Your task to perform on an android device: Show me productivity apps on the Play Store Image 0: 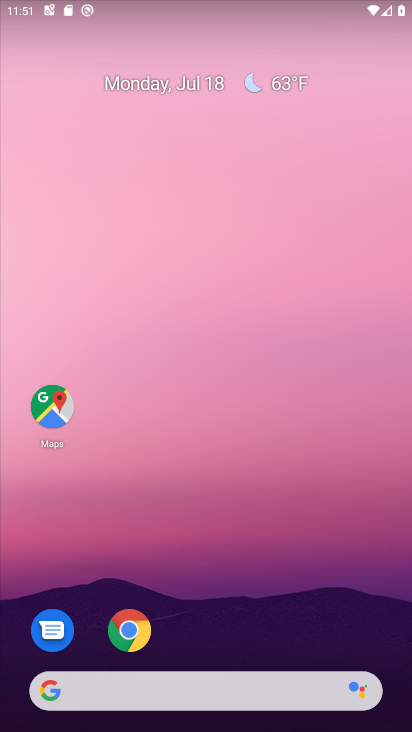
Step 0: drag from (216, 597) to (282, 115)
Your task to perform on an android device: Show me productivity apps on the Play Store Image 1: 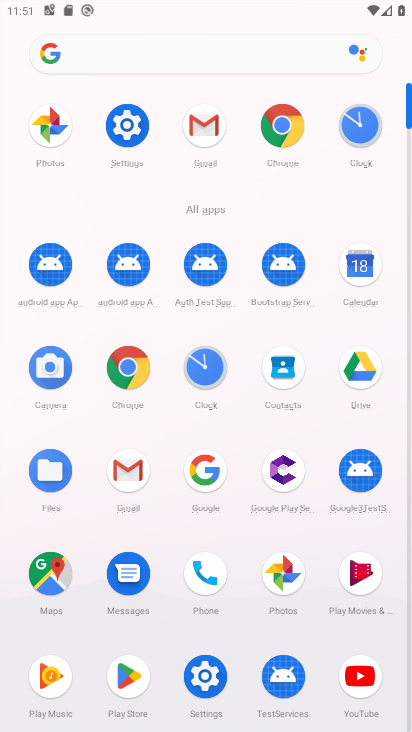
Step 1: click (124, 687)
Your task to perform on an android device: Show me productivity apps on the Play Store Image 2: 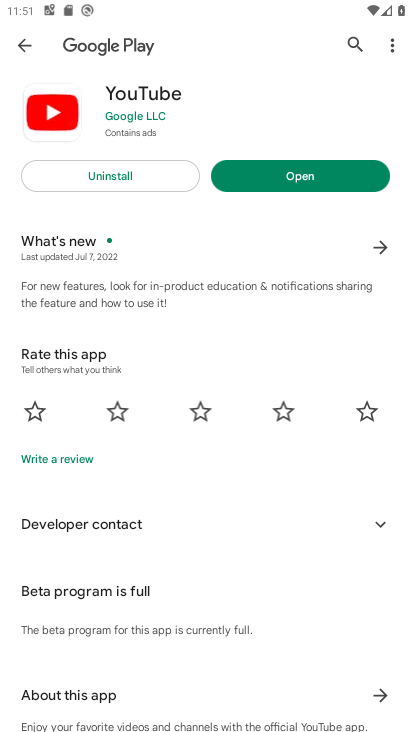
Step 2: drag from (355, 171) to (397, 0)
Your task to perform on an android device: Show me productivity apps on the Play Store Image 3: 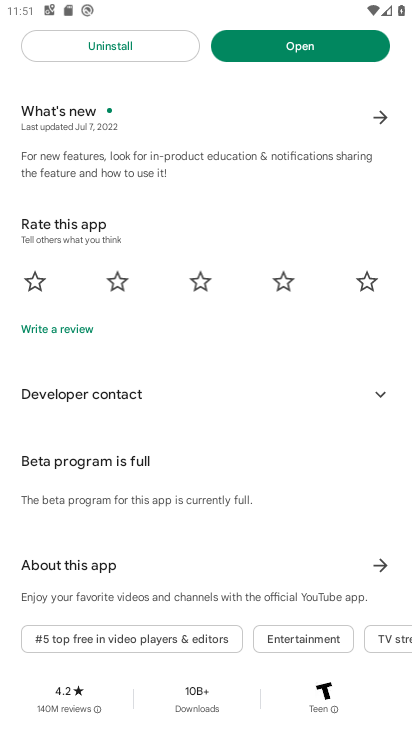
Step 3: press back button
Your task to perform on an android device: Show me productivity apps on the Play Store Image 4: 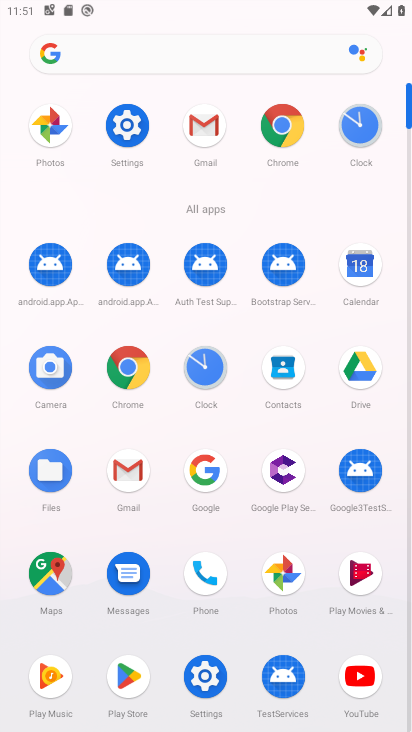
Step 4: click (132, 679)
Your task to perform on an android device: Show me productivity apps on the Play Store Image 5: 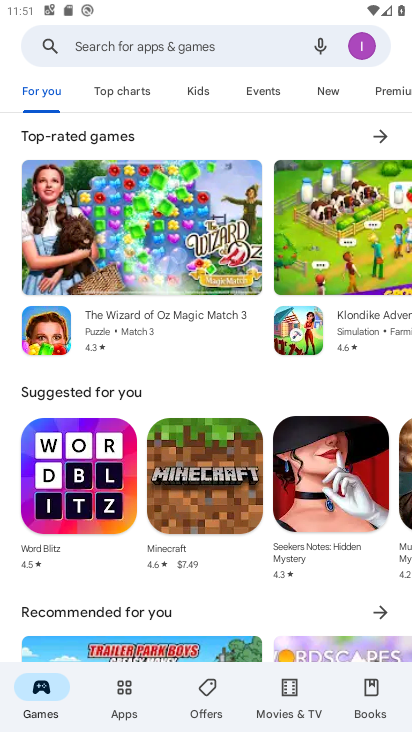
Step 5: click (129, 713)
Your task to perform on an android device: Show me productivity apps on the Play Store Image 6: 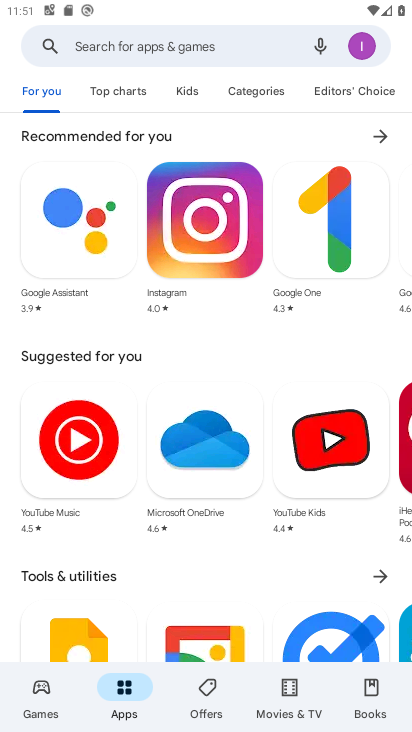
Step 6: click (245, 86)
Your task to perform on an android device: Show me productivity apps on the Play Store Image 7: 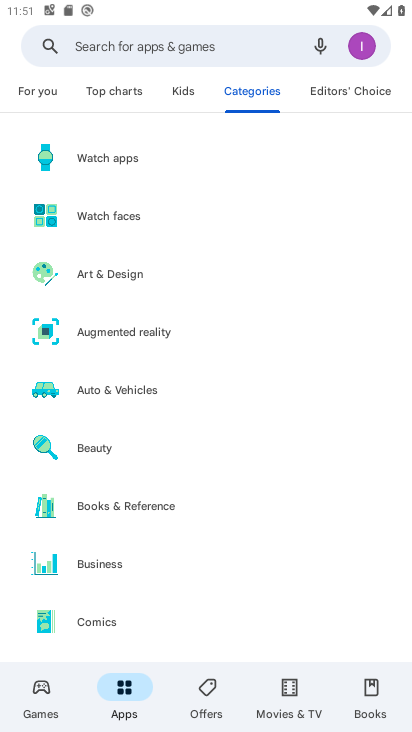
Step 7: drag from (179, 634) to (212, 181)
Your task to perform on an android device: Show me productivity apps on the Play Store Image 8: 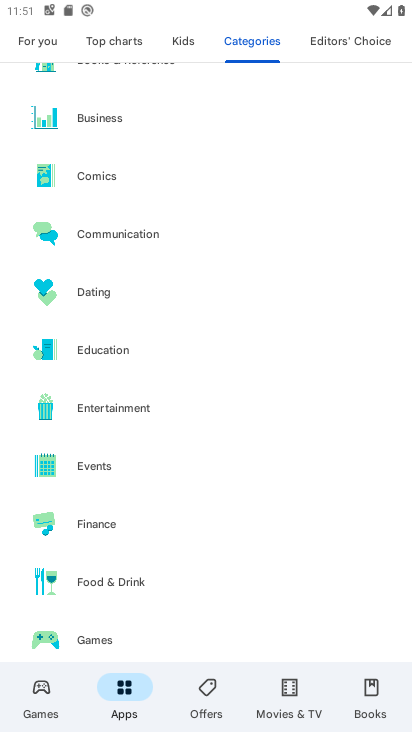
Step 8: drag from (159, 637) to (172, 176)
Your task to perform on an android device: Show me productivity apps on the Play Store Image 9: 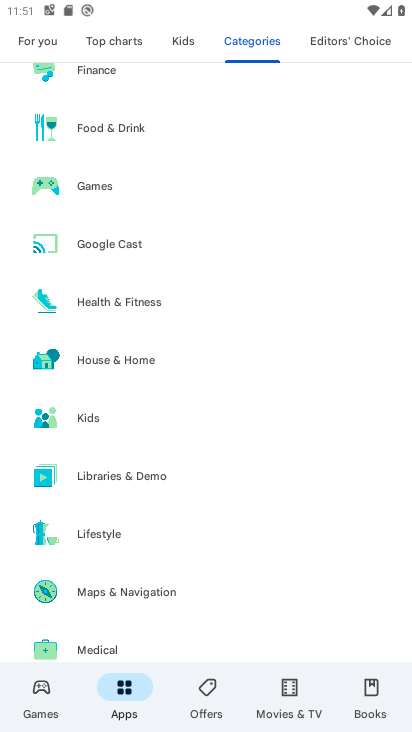
Step 9: drag from (207, 629) to (194, 112)
Your task to perform on an android device: Show me productivity apps on the Play Store Image 10: 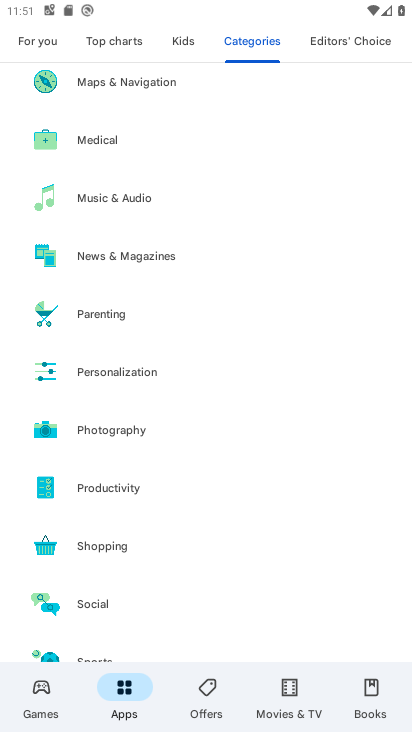
Step 10: click (97, 493)
Your task to perform on an android device: Show me productivity apps on the Play Store Image 11: 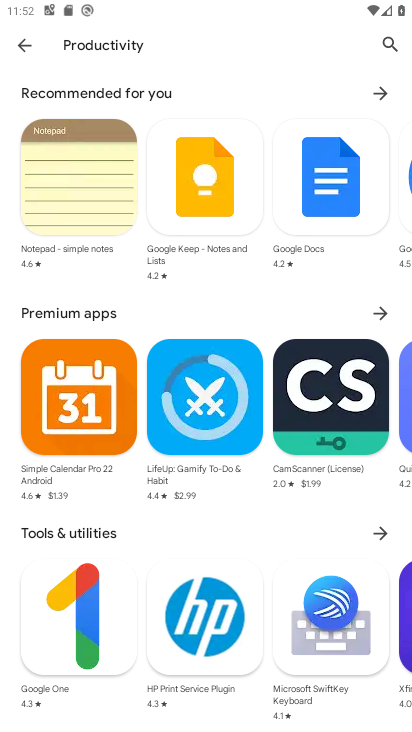
Step 11: task complete